Your task to perform on an android device: Go to Amazon Image 0: 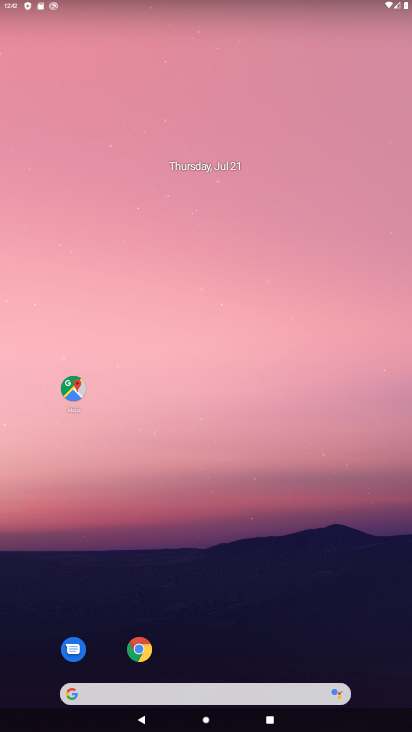
Step 0: drag from (243, 677) to (168, 174)
Your task to perform on an android device: Go to Amazon Image 1: 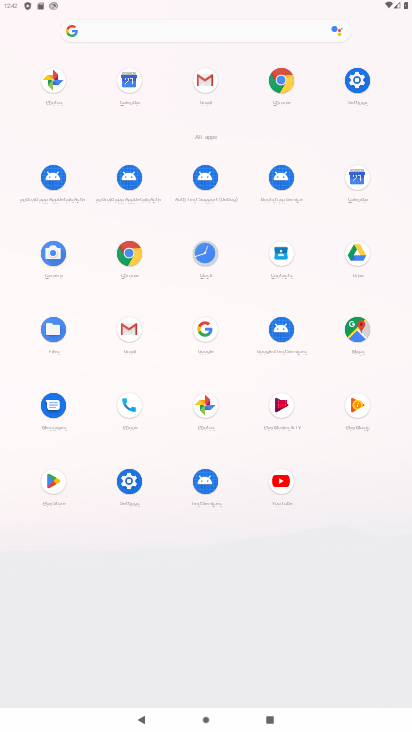
Step 1: click (282, 82)
Your task to perform on an android device: Go to Amazon Image 2: 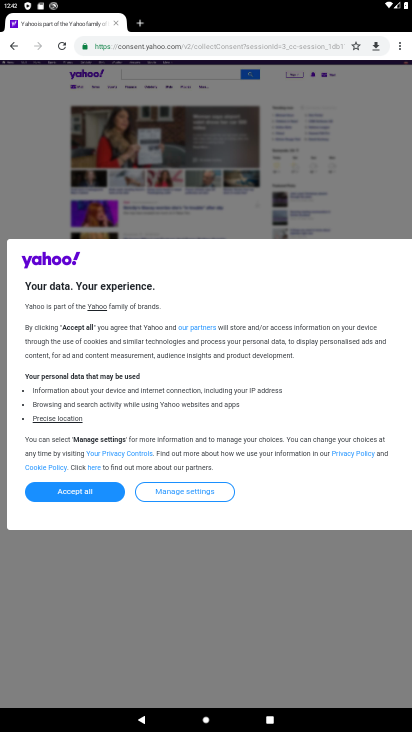
Step 2: click (106, 22)
Your task to perform on an android device: Go to Amazon Image 3: 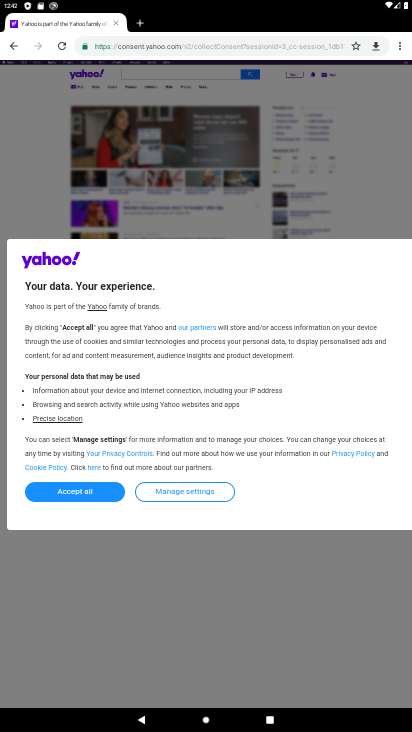
Step 3: click (114, 26)
Your task to perform on an android device: Go to Amazon Image 4: 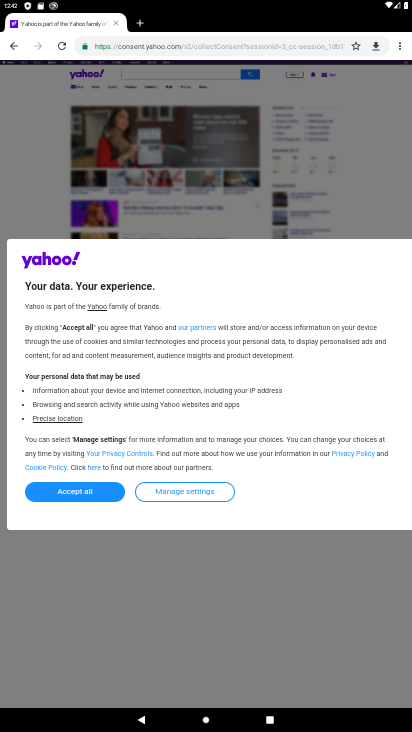
Step 4: click (117, 21)
Your task to perform on an android device: Go to Amazon Image 5: 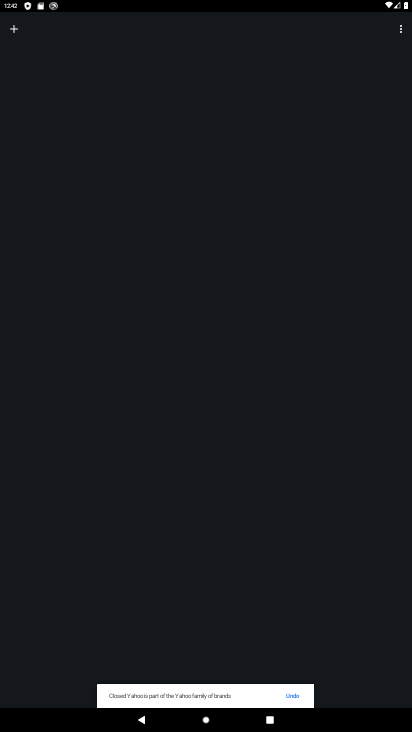
Step 5: click (16, 33)
Your task to perform on an android device: Go to Amazon Image 6: 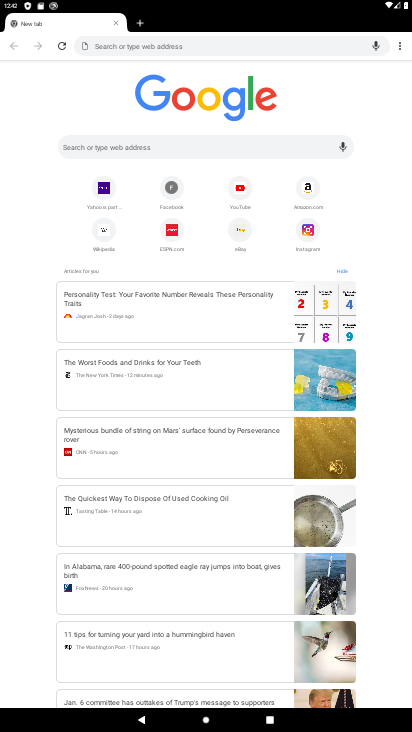
Step 6: click (299, 191)
Your task to perform on an android device: Go to Amazon Image 7: 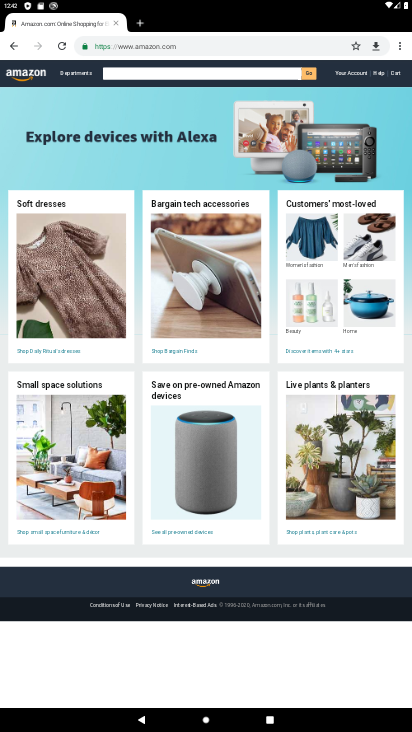
Step 7: task complete